Your task to perform on an android device: Go to wifi settings Image 0: 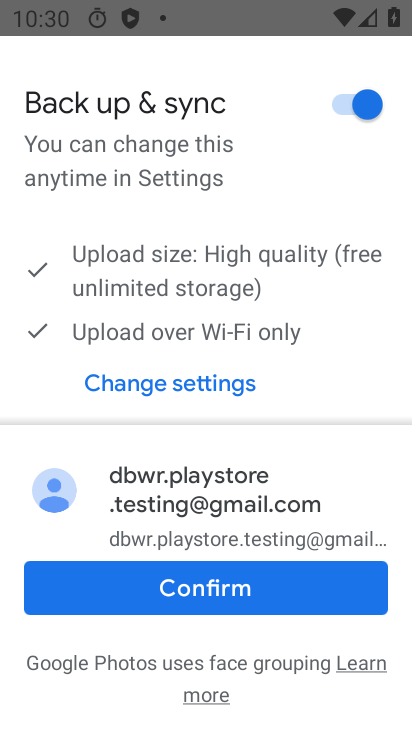
Step 0: press home button
Your task to perform on an android device: Go to wifi settings Image 1: 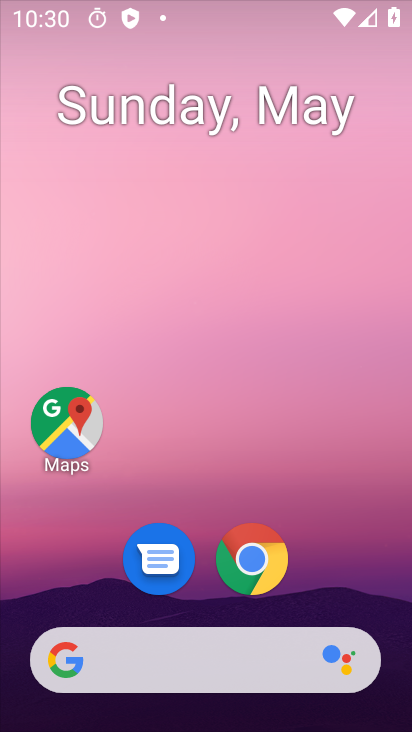
Step 1: drag from (339, 555) to (328, 203)
Your task to perform on an android device: Go to wifi settings Image 2: 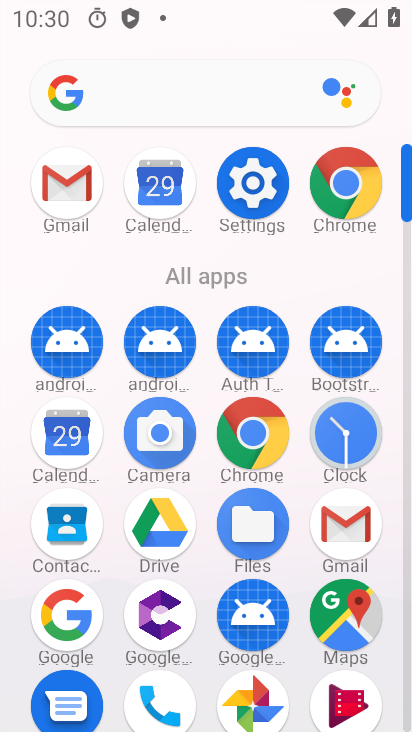
Step 2: click (268, 190)
Your task to perform on an android device: Go to wifi settings Image 3: 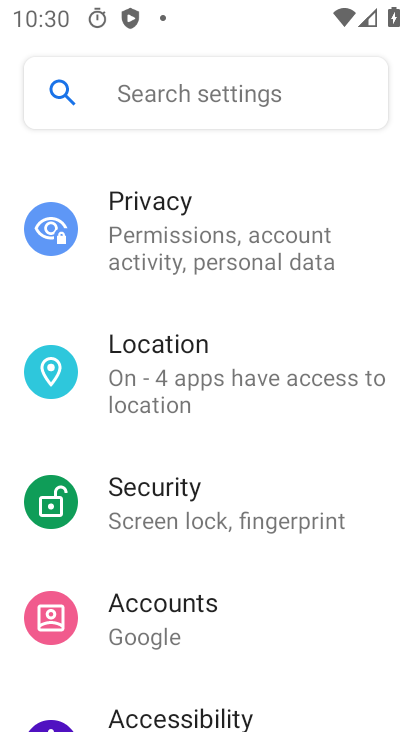
Step 3: drag from (251, 205) to (220, 603)
Your task to perform on an android device: Go to wifi settings Image 4: 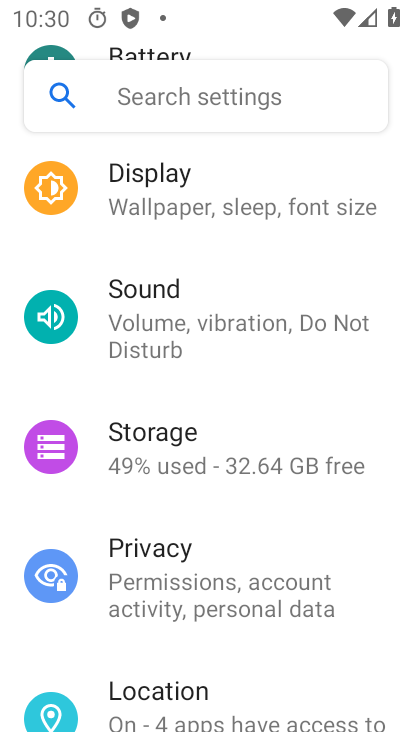
Step 4: drag from (243, 282) to (225, 731)
Your task to perform on an android device: Go to wifi settings Image 5: 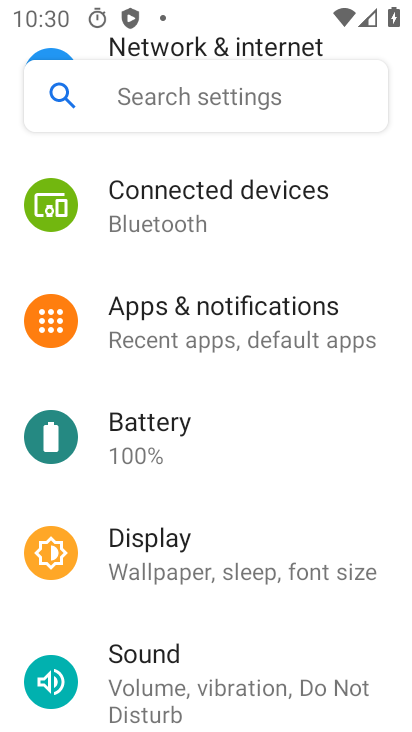
Step 5: drag from (272, 232) to (290, 681)
Your task to perform on an android device: Go to wifi settings Image 6: 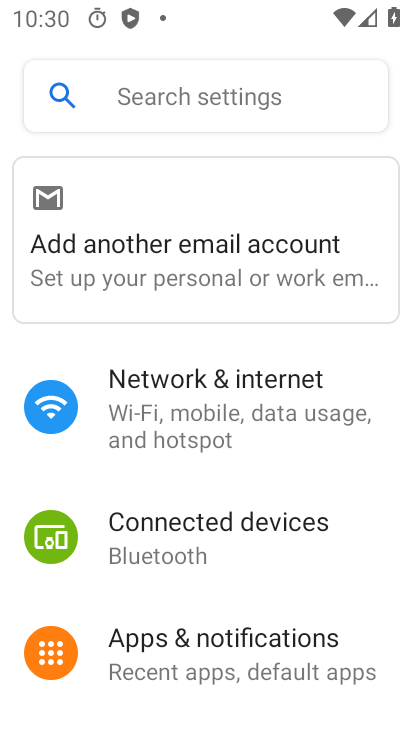
Step 6: click (284, 400)
Your task to perform on an android device: Go to wifi settings Image 7: 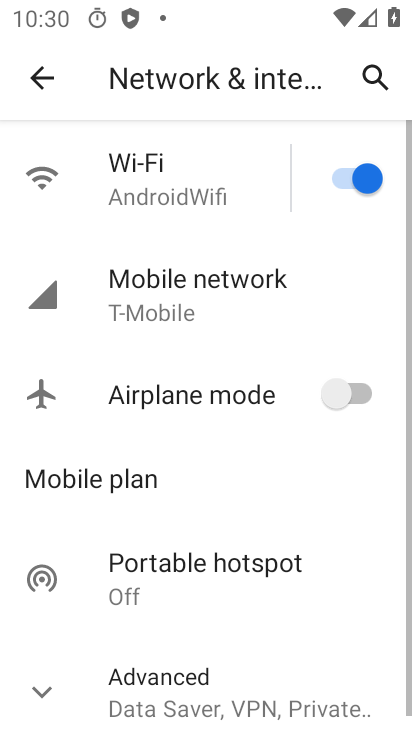
Step 7: click (175, 199)
Your task to perform on an android device: Go to wifi settings Image 8: 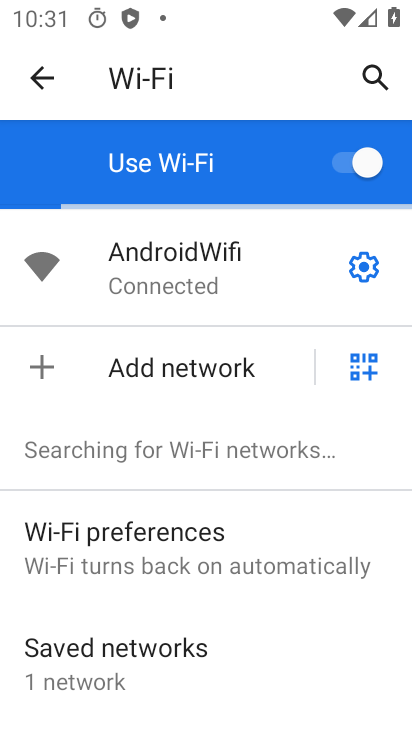
Step 8: click (354, 270)
Your task to perform on an android device: Go to wifi settings Image 9: 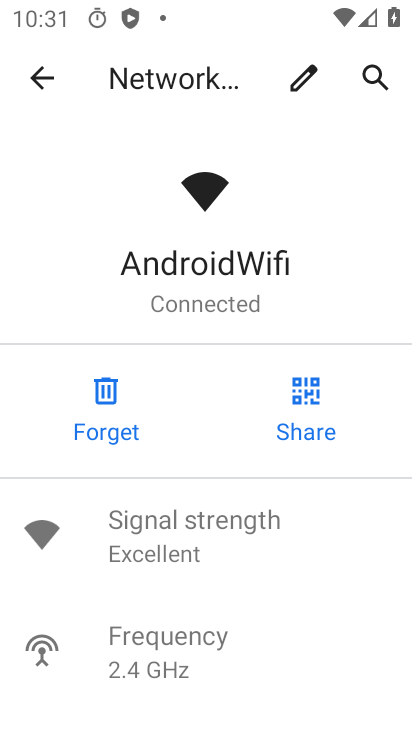
Step 9: task complete